Your task to perform on an android device: Open Maps and search for coffee Image 0: 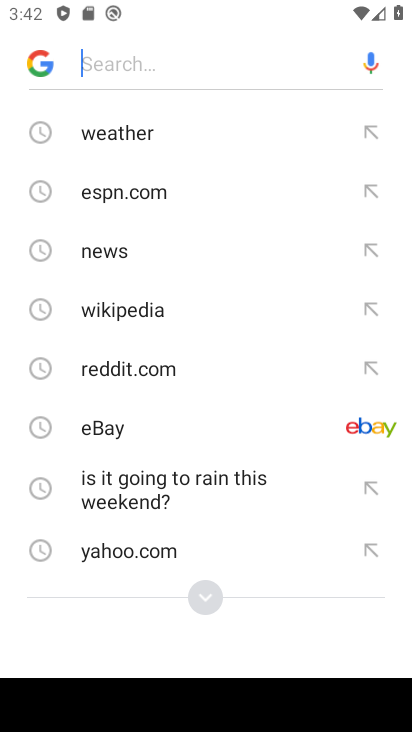
Step 0: press back button
Your task to perform on an android device: Open Maps and search for coffee Image 1: 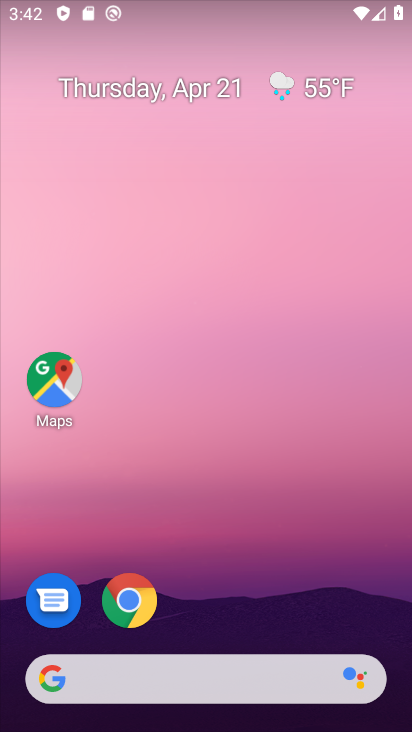
Step 1: click (63, 368)
Your task to perform on an android device: Open Maps and search for coffee Image 2: 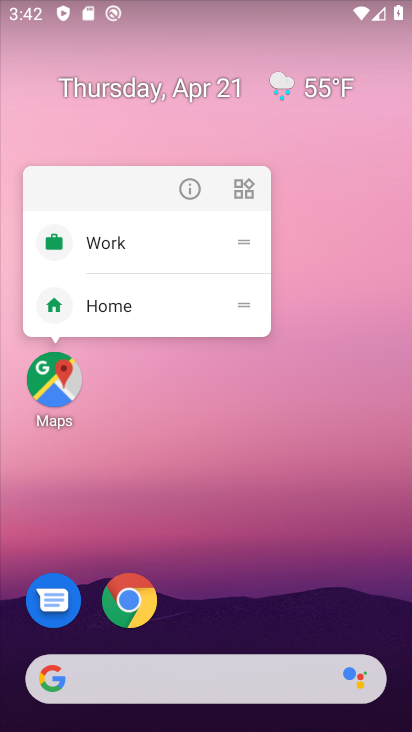
Step 2: click (60, 393)
Your task to perform on an android device: Open Maps and search for coffee Image 3: 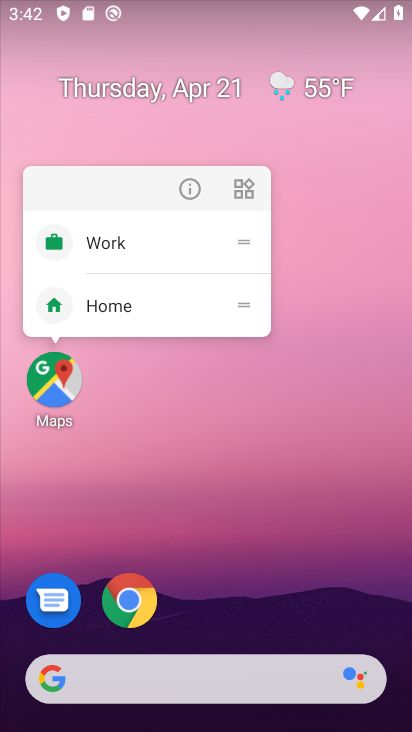
Step 3: click (60, 393)
Your task to perform on an android device: Open Maps and search for coffee Image 4: 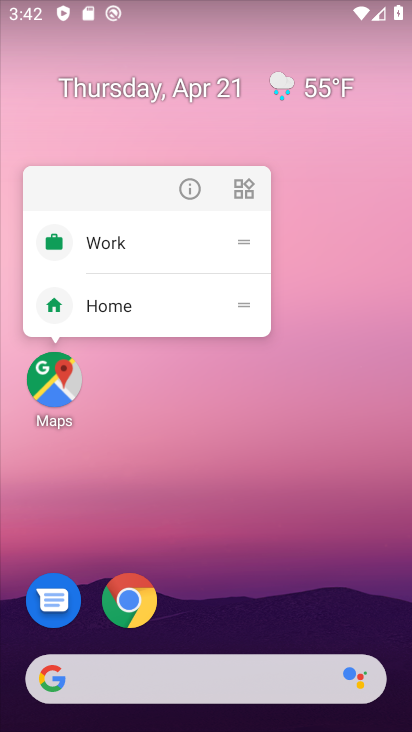
Step 4: click (60, 393)
Your task to perform on an android device: Open Maps and search for coffee Image 5: 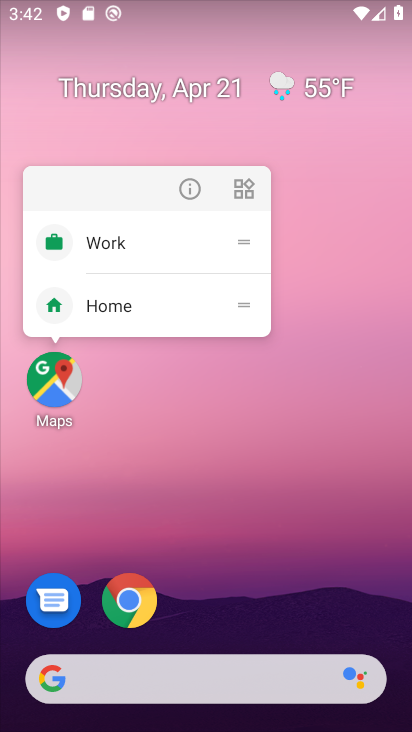
Step 5: click (60, 393)
Your task to perform on an android device: Open Maps and search for coffee Image 6: 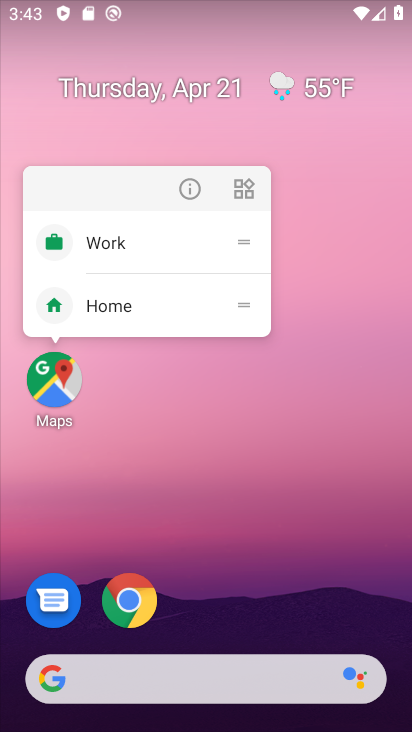
Step 6: click (72, 381)
Your task to perform on an android device: Open Maps and search for coffee Image 7: 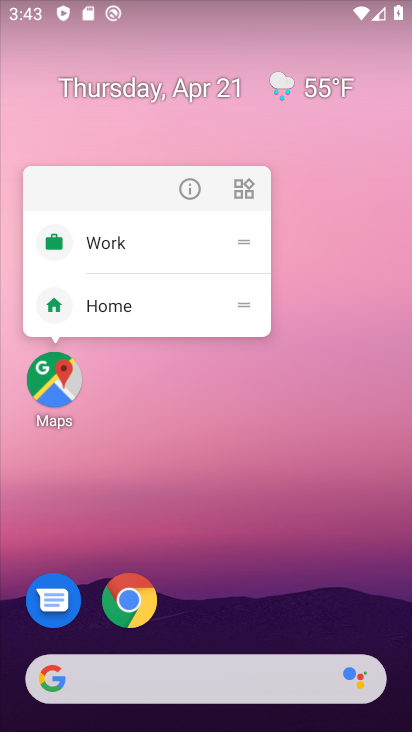
Step 7: click (72, 381)
Your task to perform on an android device: Open Maps and search for coffee Image 8: 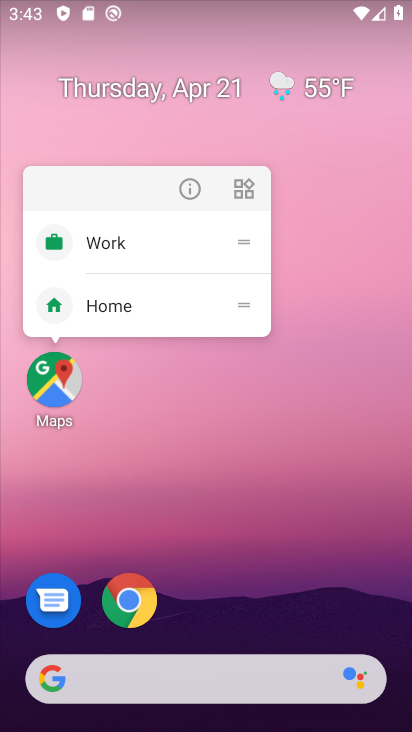
Step 8: click (52, 380)
Your task to perform on an android device: Open Maps and search for coffee Image 9: 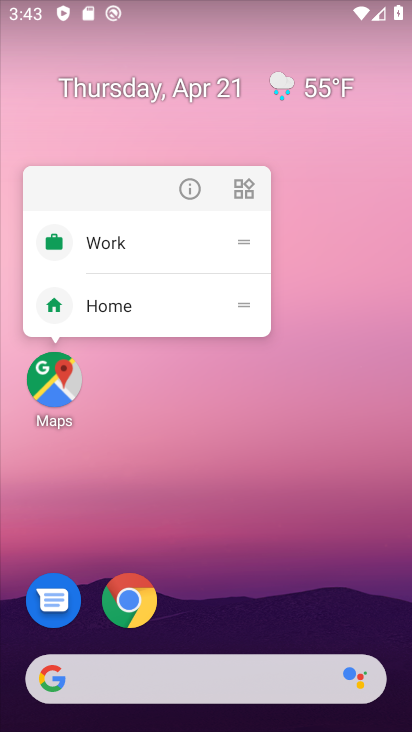
Step 9: click (61, 379)
Your task to perform on an android device: Open Maps and search for coffee Image 10: 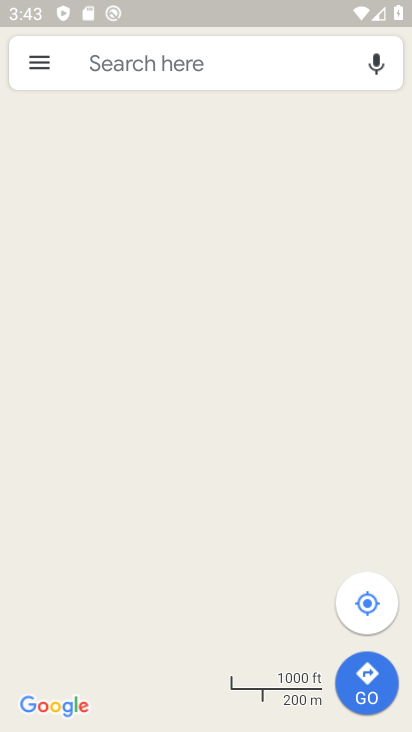
Step 10: click (168, 63)
Your task to perform on an android device: Open Maps and search for coffee Image 11: 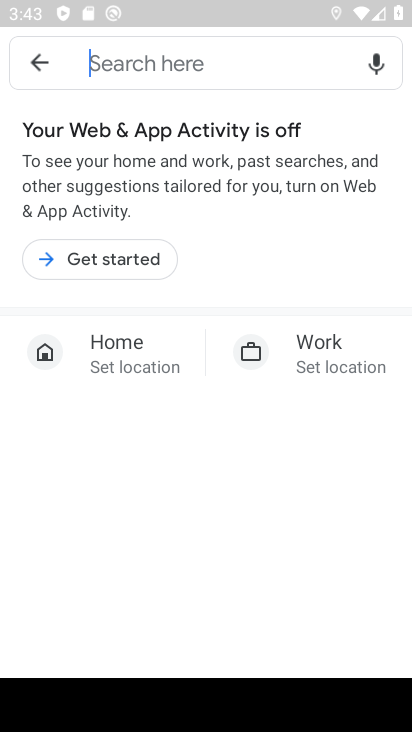
Step 11: type "coffee "
Your task to perform on an android device: Open Maps and search for coffee Image 12: 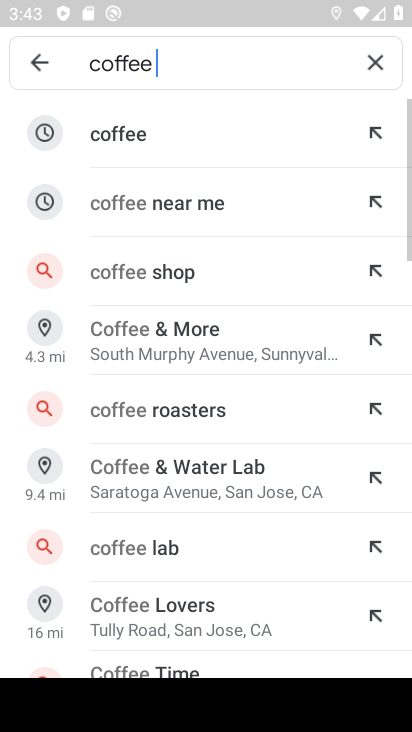
Step 12: click (201, 138)
Your task to perform on an android device: Open Maps and search for coffee Image 13: 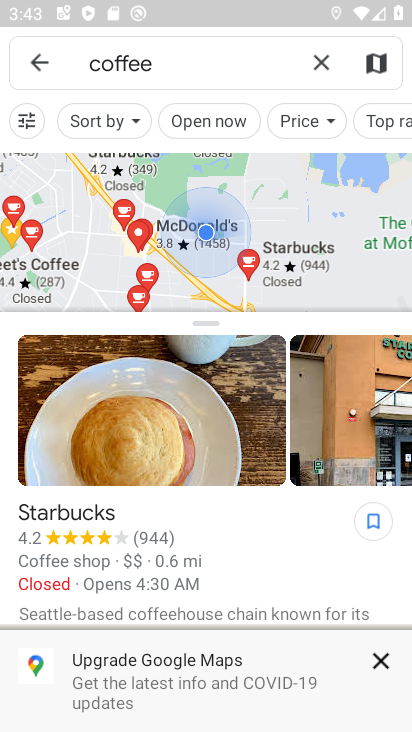
Step 13: click (389, 662)
Your task to perform on an android device: Open Maps and search for coffee Image 14: 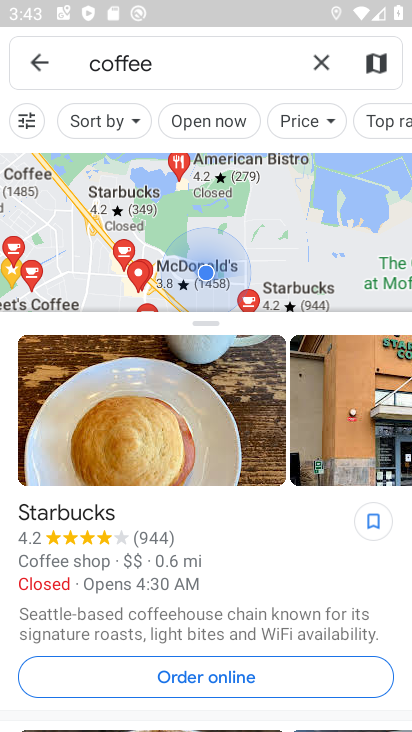
Step 14: task complete